Your task to perform on an android device: turn on the 12-hour format for clock Image 0: 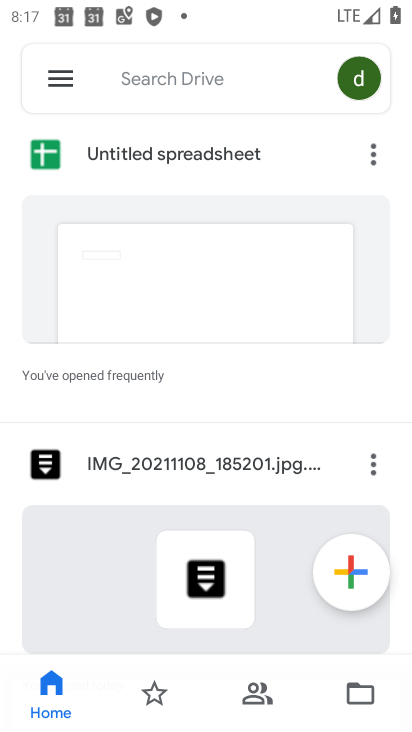
Step 0: press home button
Your task to perform on an android device: turn on the 12-hour format for clock Image 1: 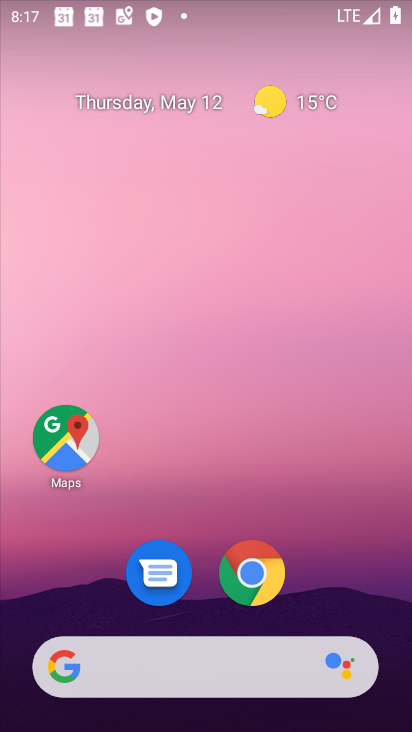
Step 1: drag from (321, 562) to (193, 20)
Your task to perform on an android device: turn on the 12-hour format for clock Image 2: 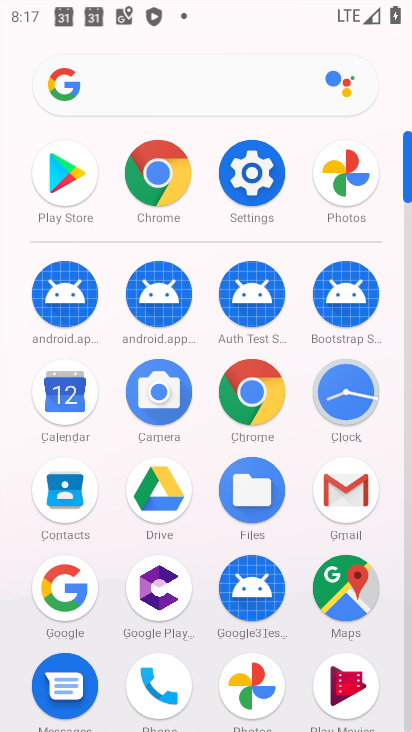
Step 2: click (351, 398)
Your task to perform on an android device: turn on the 12-hour format for clock Image 3: 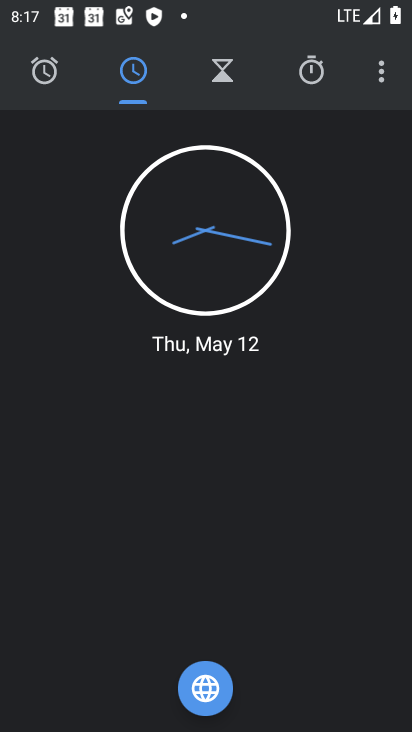
Step 3: click (384, 69)
Your task to perform on an android device: turn on the 12-hour format for clock Image 4: 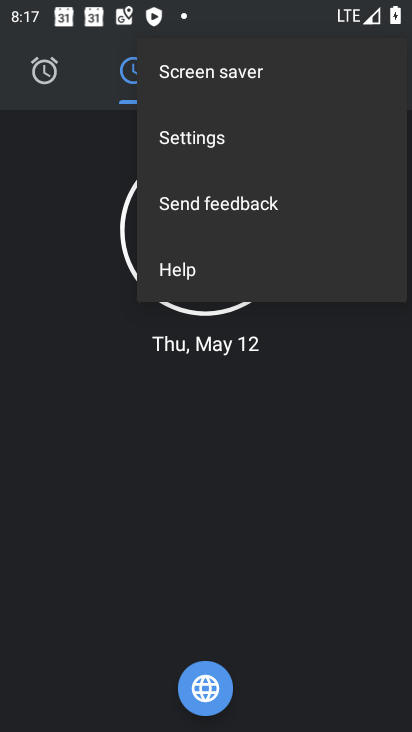
Step 4: click (194, 136)
Your task to perform on an android device: turn on the 12-hour format for clock Image 5: 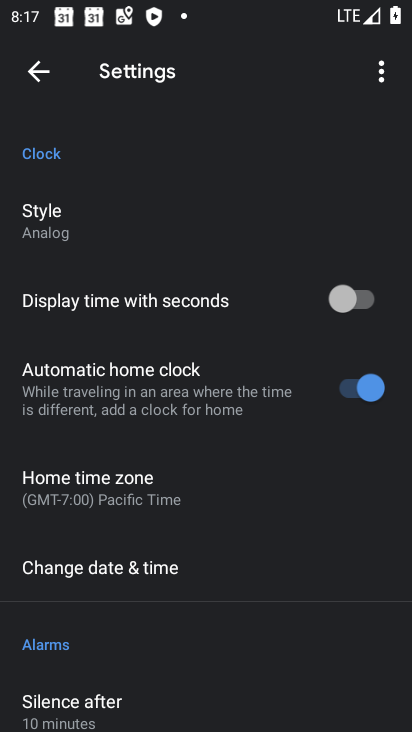
Step 5: click (124, 577)
Your task to perform on an android device: turn on the 12-hour format for clock Image 6: 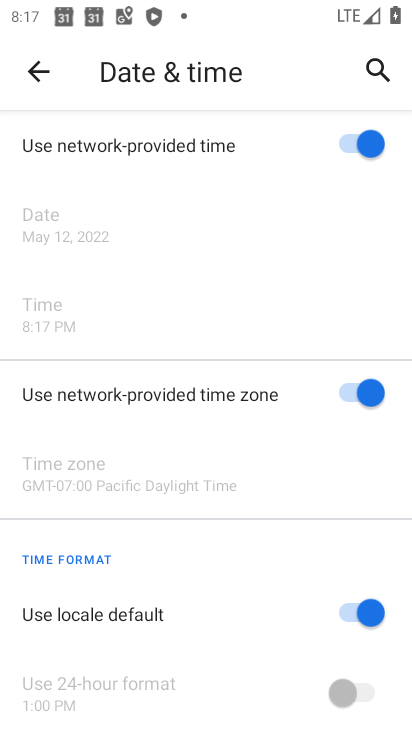
Step 6: task complete